Your task to perform on an android device: toggle location history Image 0: 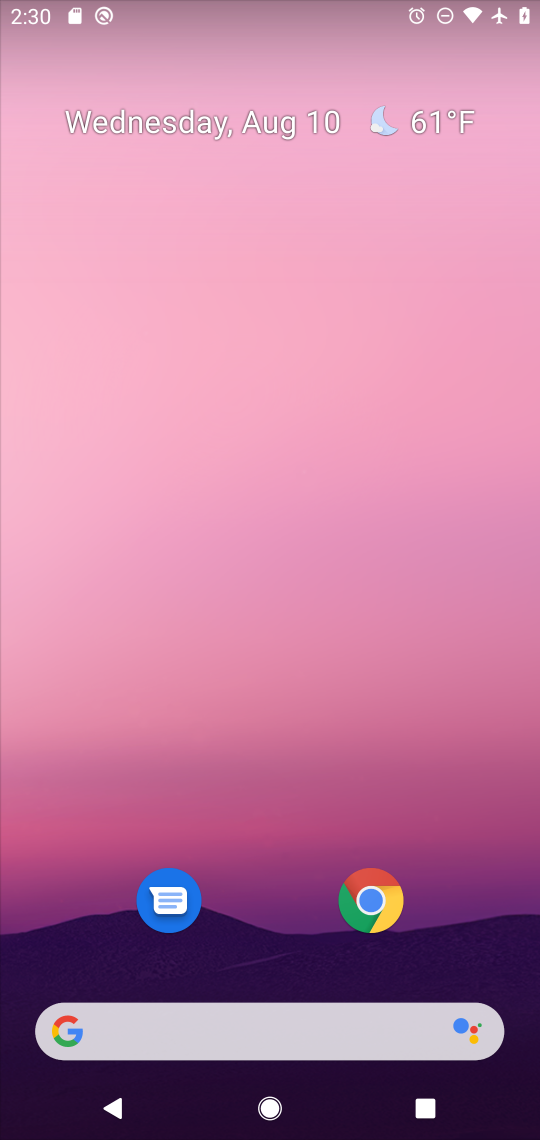
Step 0: drag from (283, 850) to (343, 0)
Your task to perform on an android device: toggle location history Image 1: 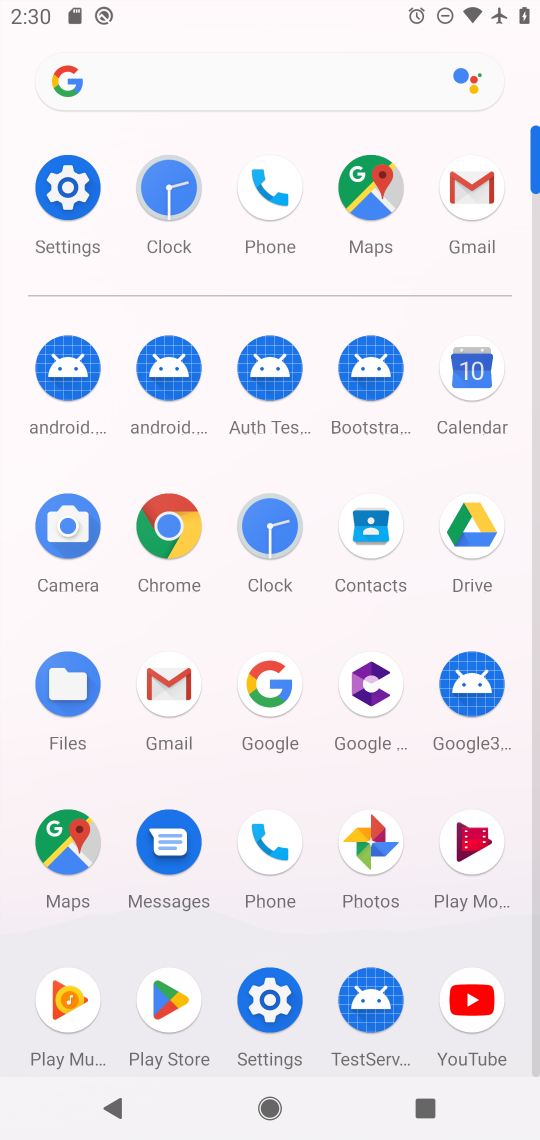
Step 1: click (72, 186)
Your task to perform on an android device: toggle location history Image 2: 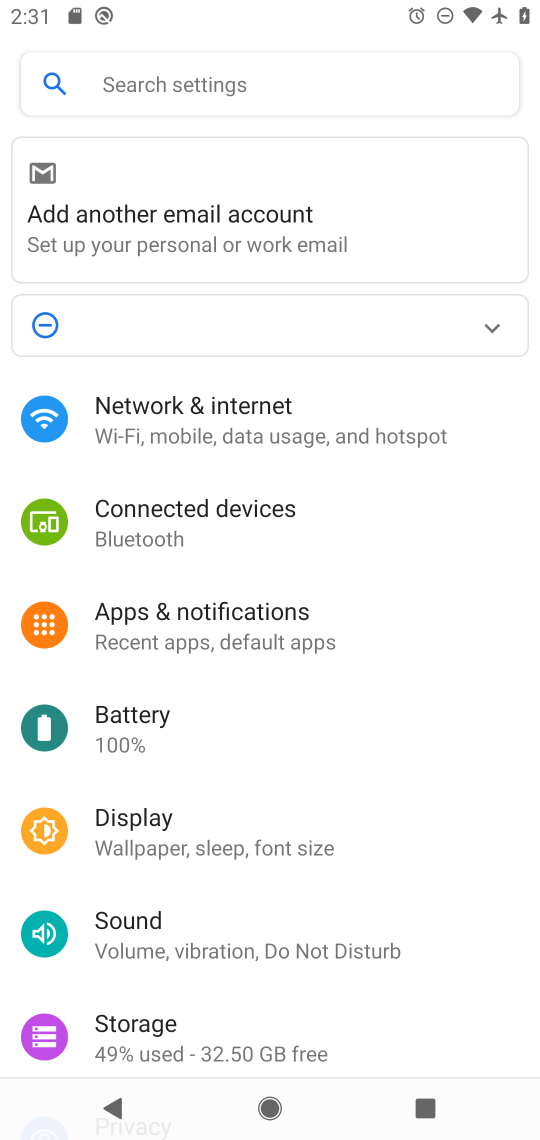
Step 2: drag from (240, 993) to (347, 58)
Your task to perform on an android device: toggle location history Image 3: 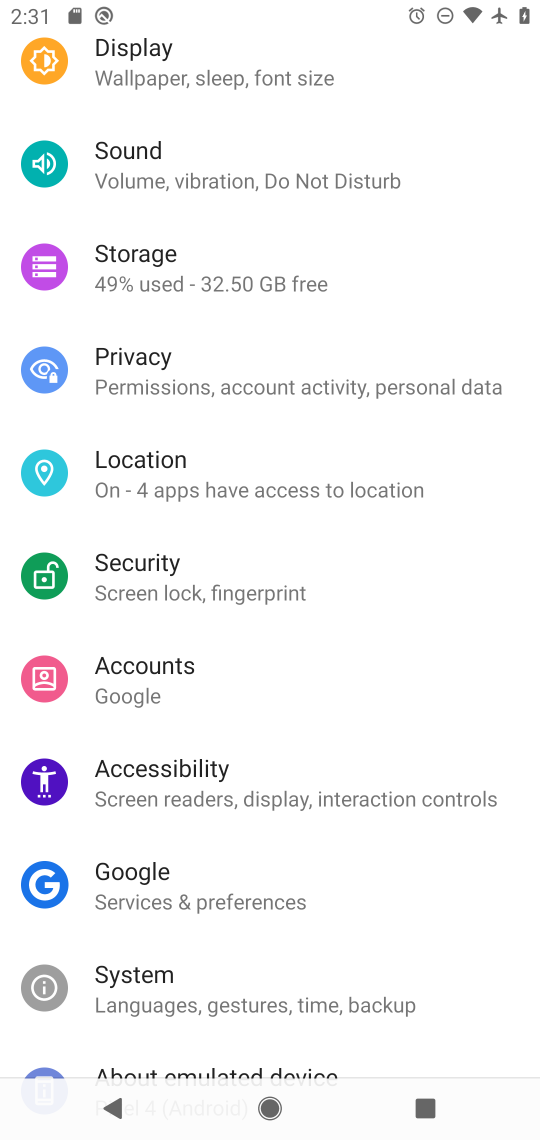
Step 3: click (284, 470)
Your task to perform on an android device: toggle location history Image 4: 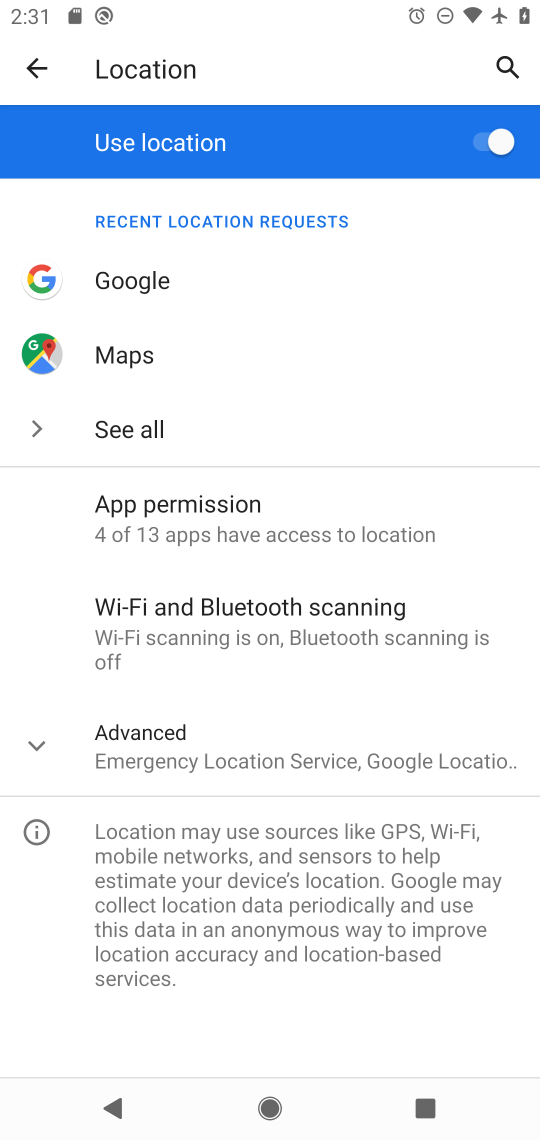
Step 4: click (38, 737)
Your task to perform on an android device: toggle location history Image 5: 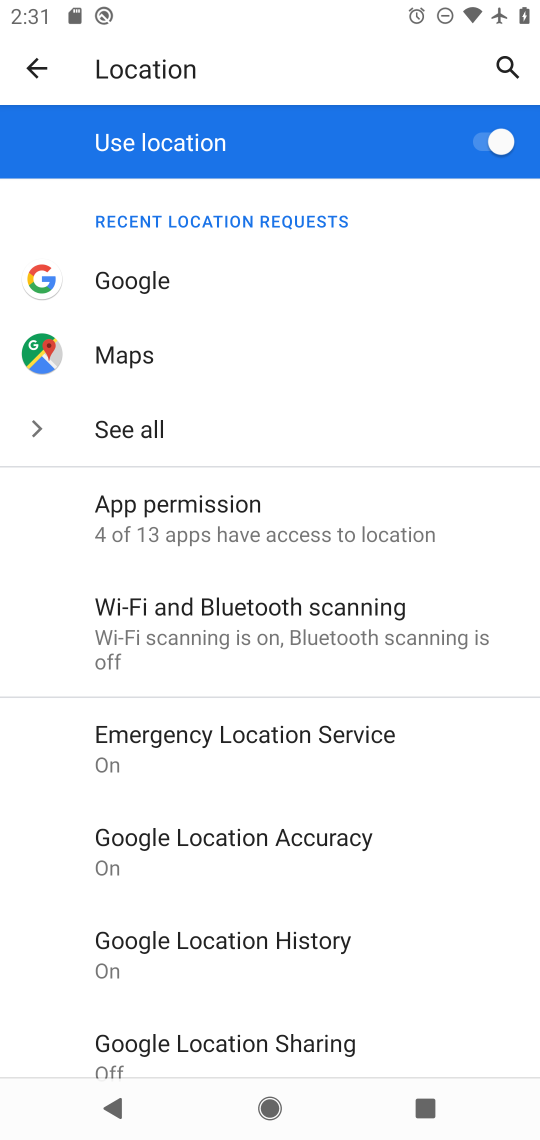
Step 5: click (223, 939)
Your task to perform on an android device: toggle location history Image 6: 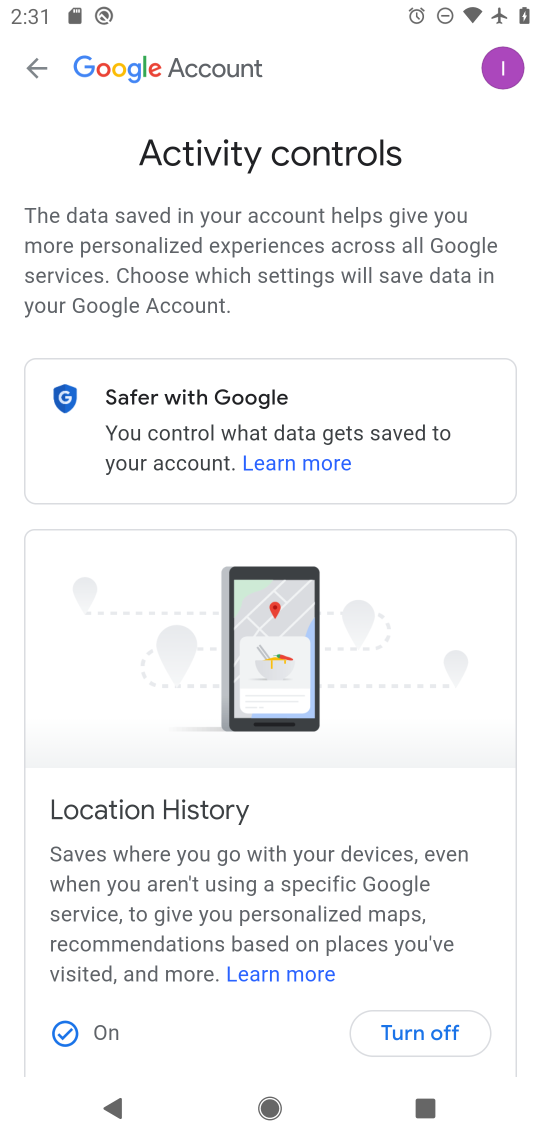
Step 6: click (448, 1033)
Your task to perform on an android device: toggle location history Image 7: 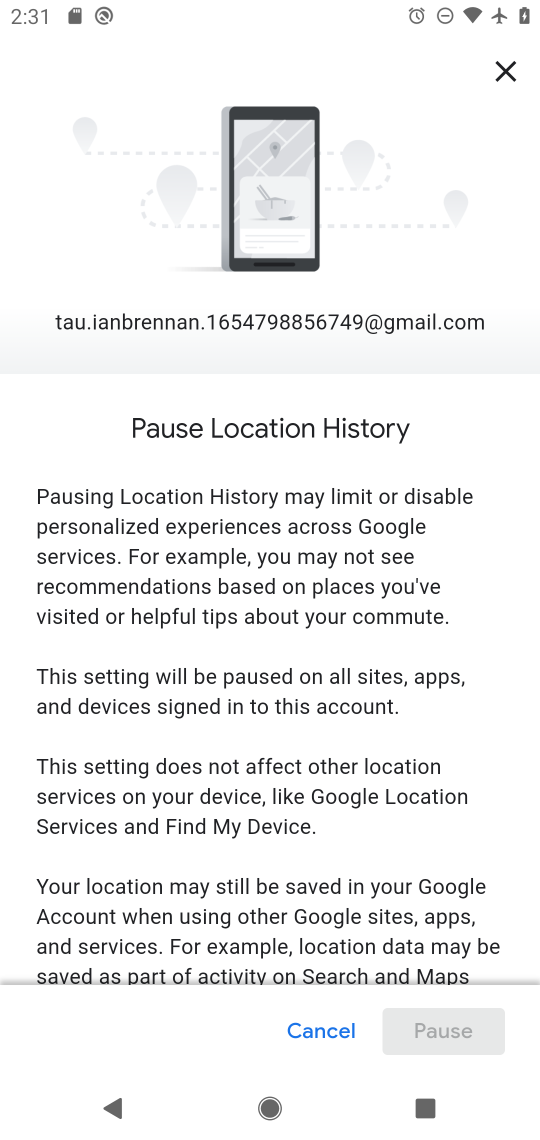
Step 7: drag from (338, 855) to (386, 130)
Your task to perform on an android device: toggle location history Image 8: 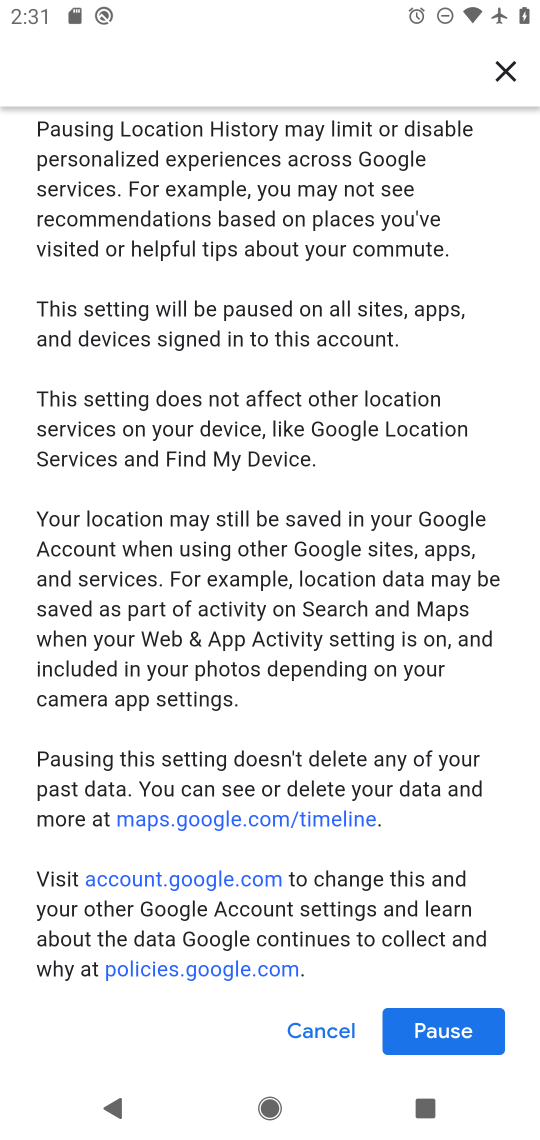
Step 8: click (450, 1031)
Your task to perform on an android device: toggle location history Image 9: 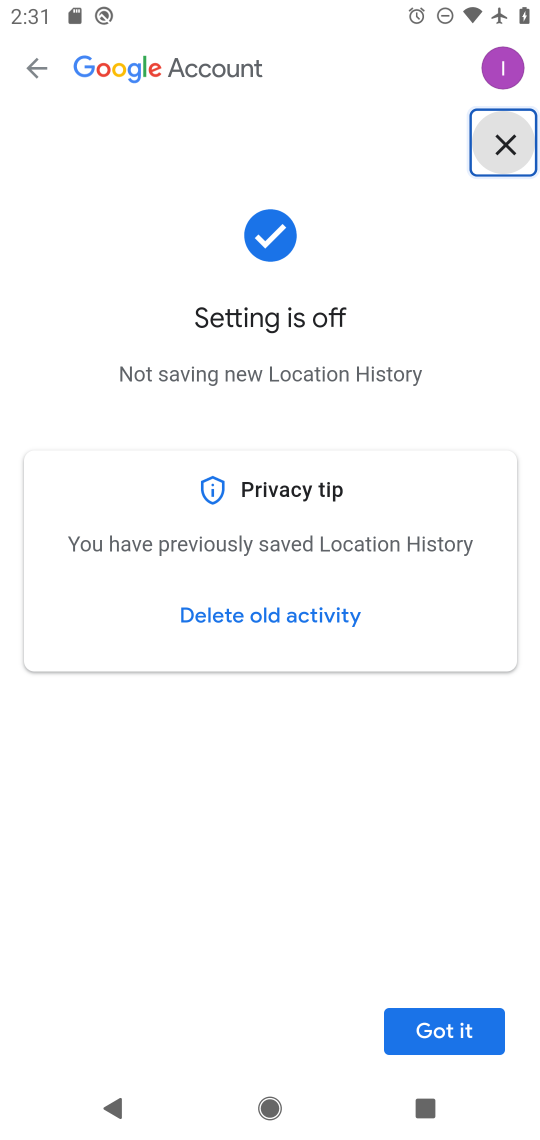
Step 9: click (471, 1029)
Your task to perform on an android device: toggle location history Image 10: 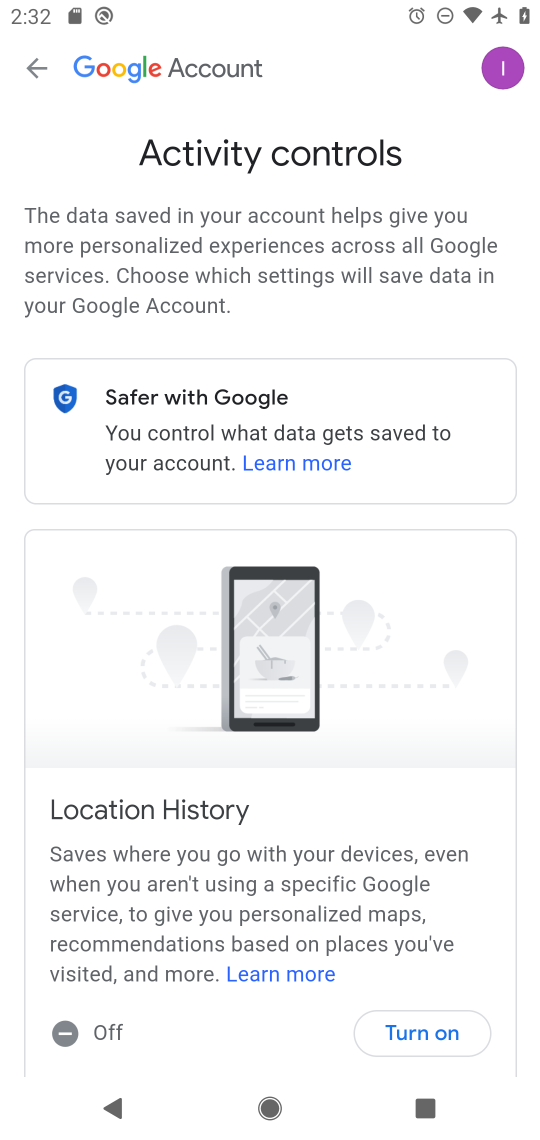
Step 10: task complete